Your task to perform on an android device: open chrome privacy settings Image 0: 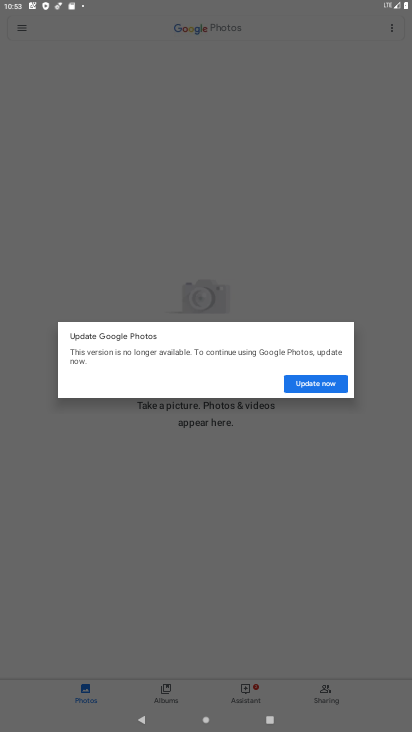
Step 0: press home button
Your task to perform on an android device: open chrome privacy settings Image 1: 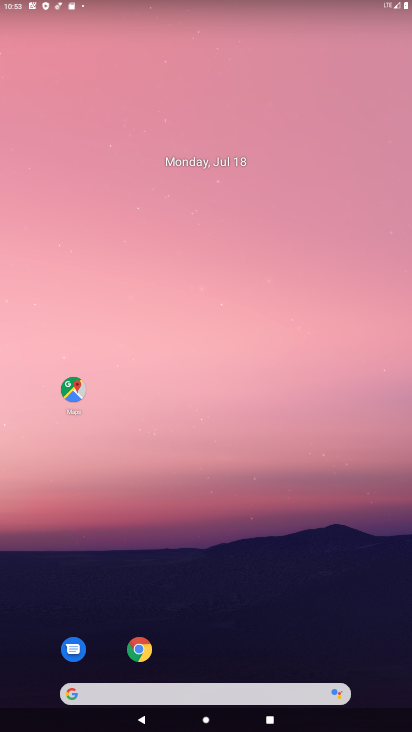
Step 1: drag from (179, 727) to (274, 141)
Your task to perform on an android device: open chrome privacy settings Image 2: 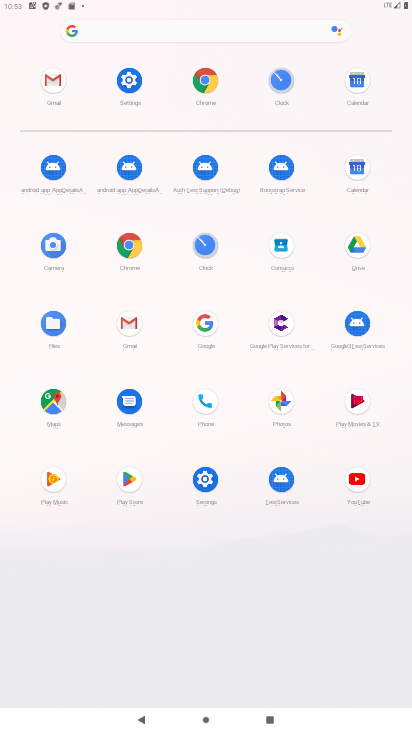
Step 2: click (198, 80)
Your task to perform on an android device: open chrome privacy settings Image 3: 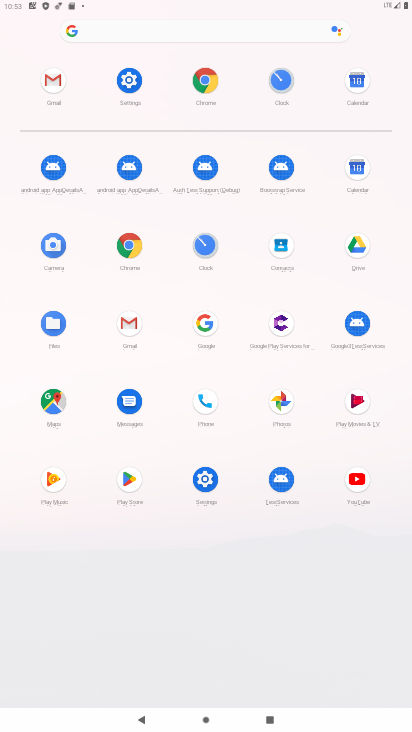
Step 3: click (198, 80)
Your task to perform on an android device: open chrome privacy settings Image 4: 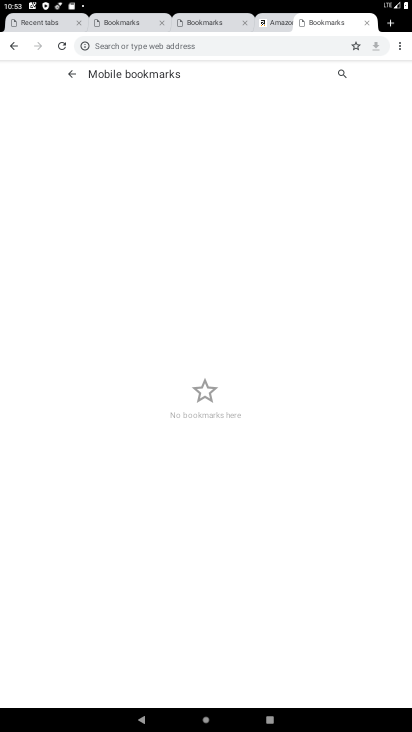
Step 4: click (403, 45)
Your task to perform on an android device: open chrome privacy settings Image 5: 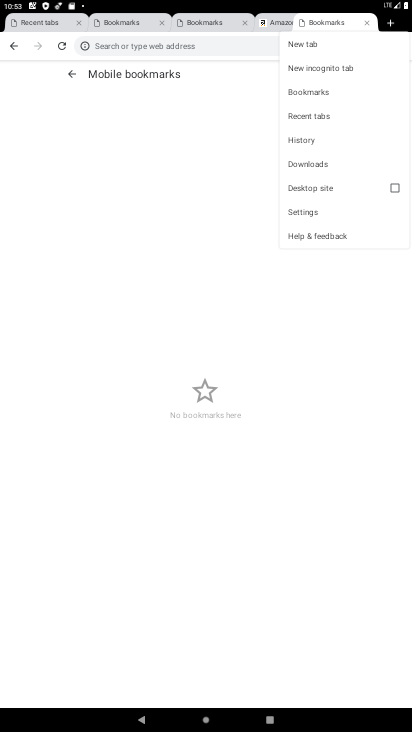
Step 5: click (300, 210)
Your task to perform on an android device: open chrome privacy settings Image 6: 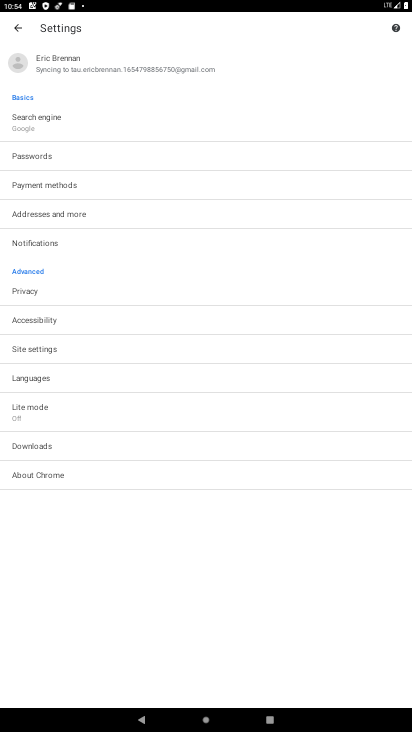
Step 6: click (73, 290)
Your task to perform on an android device: open chrome privacy settings Image 7: 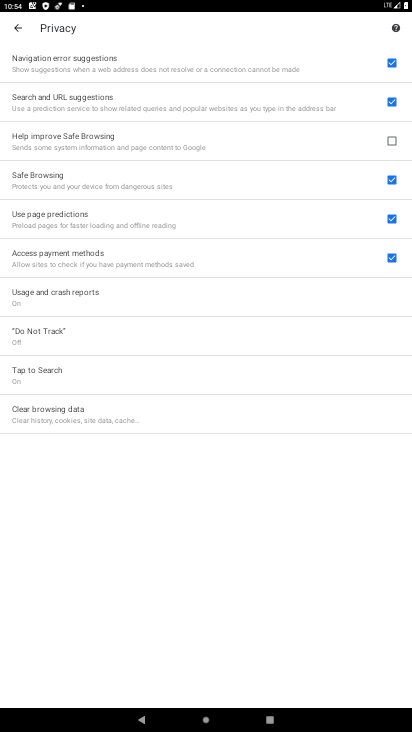
Step 7: task complete